Your task to perform on an android device: Show me productivity apps on the Play Store Image 0: 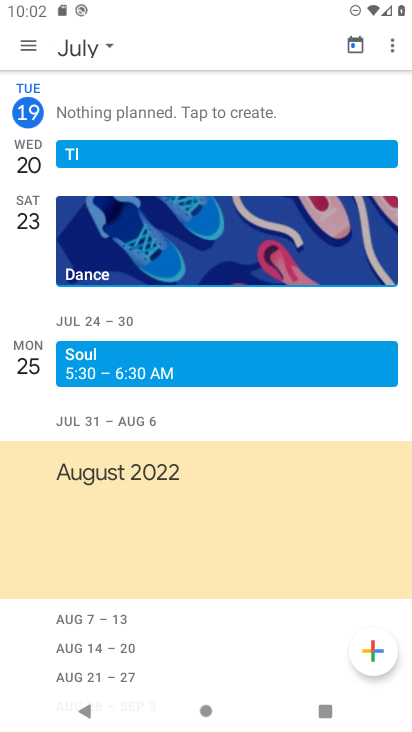
Step 0: press back button
Your task to perform on an android device: Show me productivity apps on the Play Store Image 1: 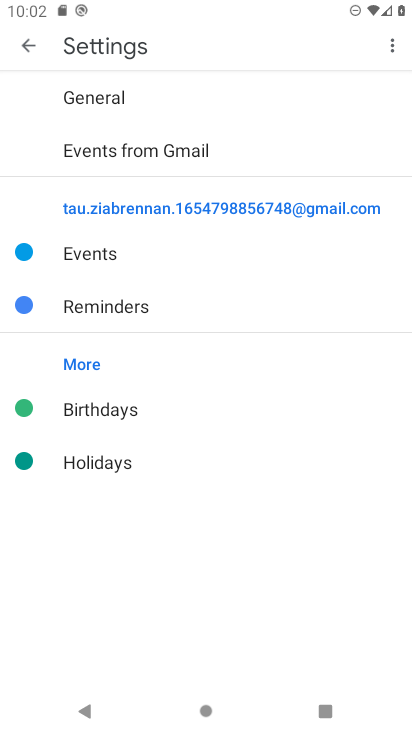
Step 1: click (33, 44)
Your task to perform on an android device: Show me productivity apps on the Play Store Image 2: 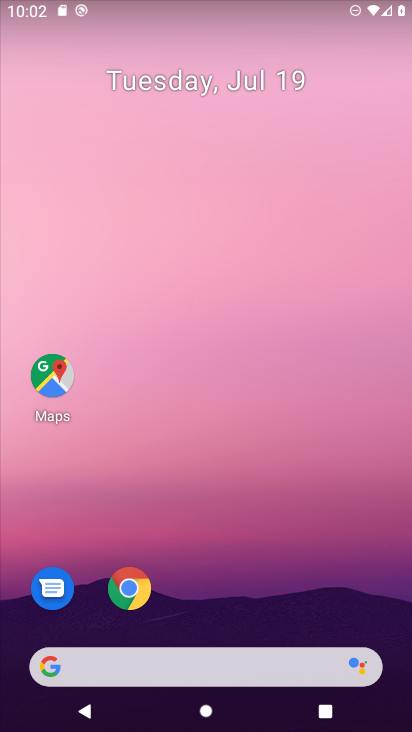
Step 2: drag from (249, 567) to (237, 33)
Your task to perform on an android device: Show me productivity apps on the Play Store Image 3: 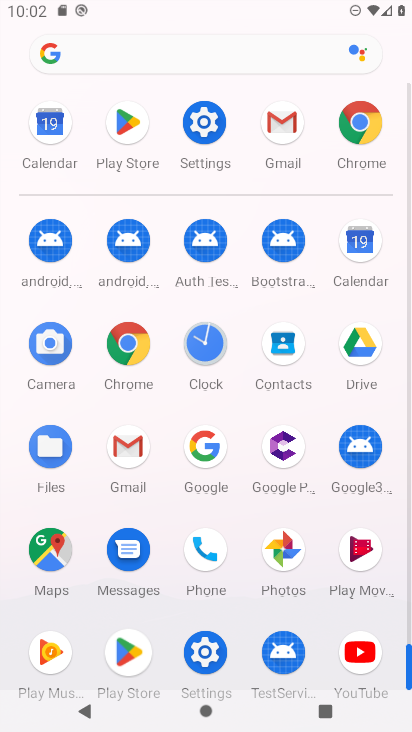
Step 3: drag from (233, 256) to (232, 171)
Your task to perform on an android device: Show me productivity apps on the Play Store Image 4: 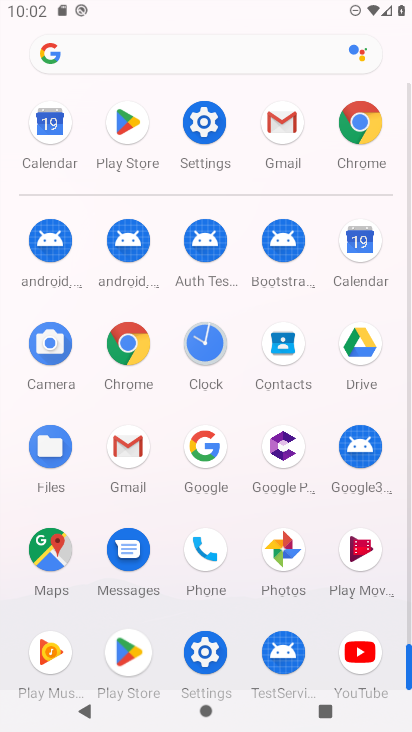
Step 4: click (157, 213)
Your task to perform on an android device: Show me productivity apps on the Play Store Image 5: 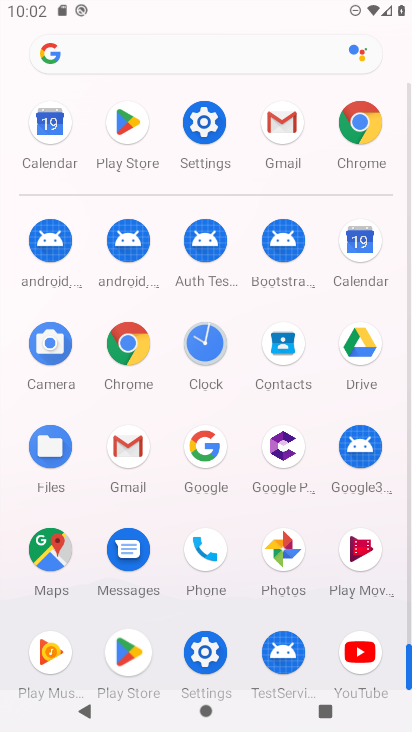
Step 5: click (209, 609)
Your task to perform on an android device: Show me productivity apps on the Play Store Image 6: 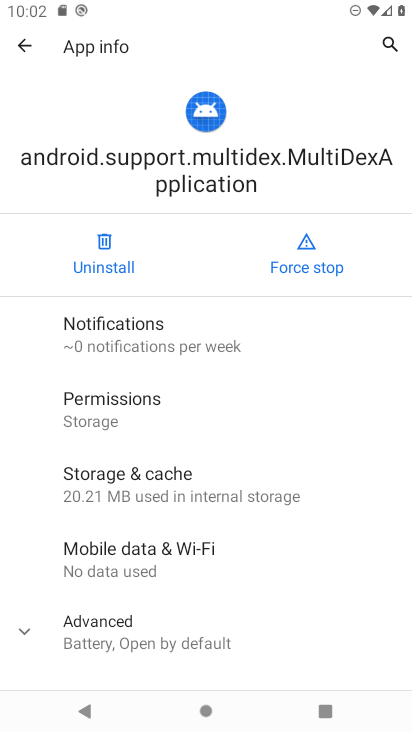
Step 6: click (22, 33)
Your task to perform on an android device: Show me productivity apps on the Play Store Image 7: 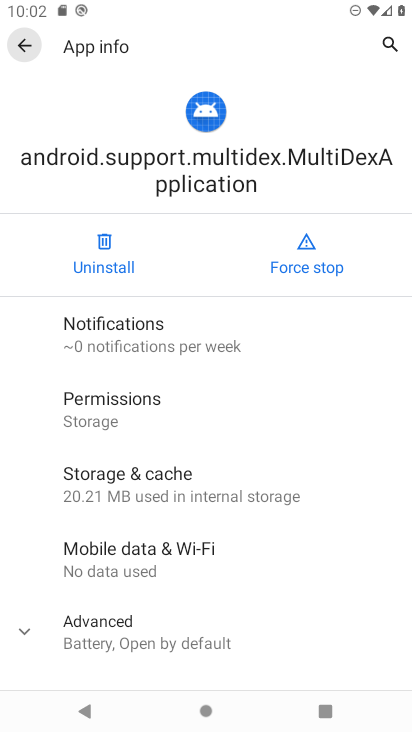
Step 7: click (22, 33)
Your task to perform on an android device: Show me productivity apps on the Play Store Image 8: 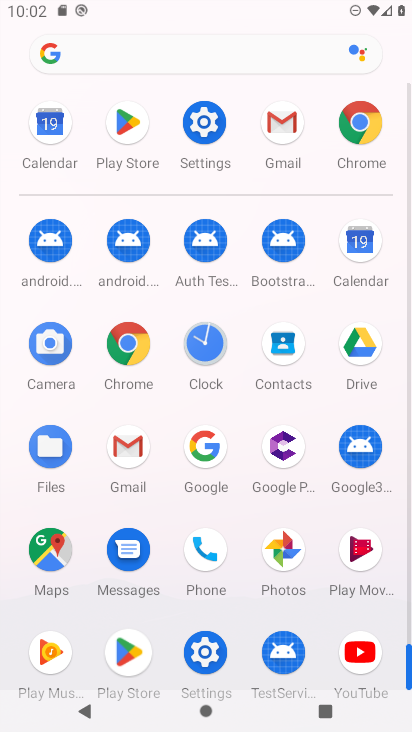
Step 8: click (122, 651)
Your task to perform on an android device: Show me productivity apps on the Play Store Image 9: 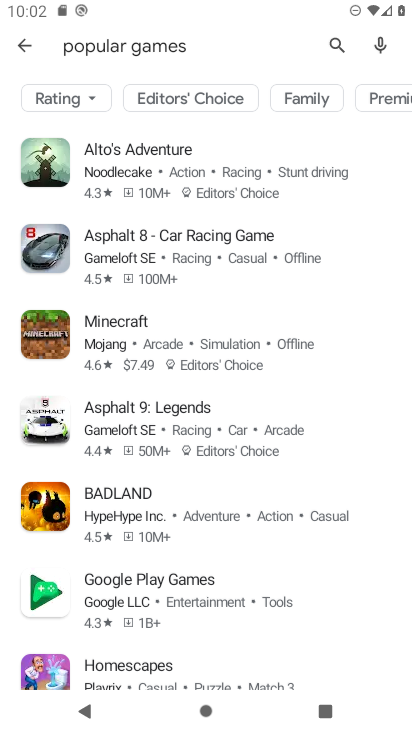
Step 9: click (121, 649)
Your task to perform on an android device: Show me productivity apps on the Play Store Image 10: 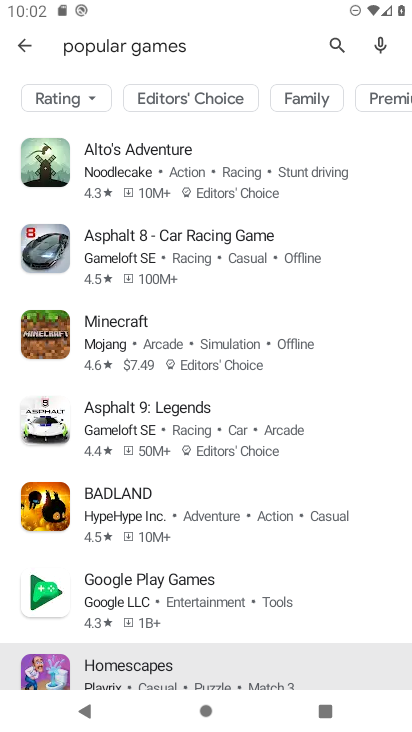
Step 10: click (120, 648)
Your task to perform on an android device: Show me productivity apps on the Play Store Image 11: 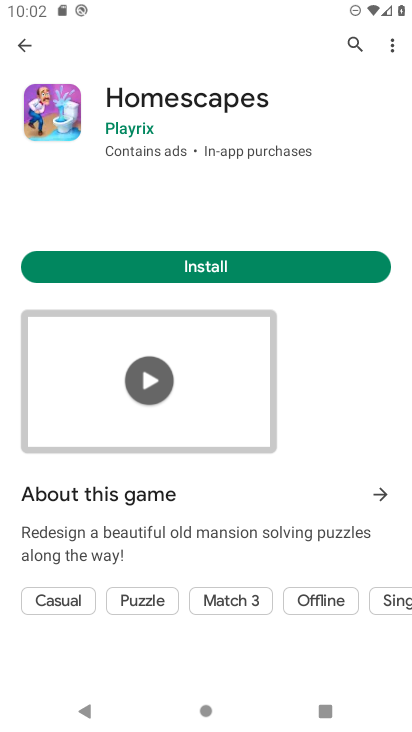
Step 11: click (187, 243)
Your task to perform on an android device: Show me productivity apps on the Play Store Image 12: 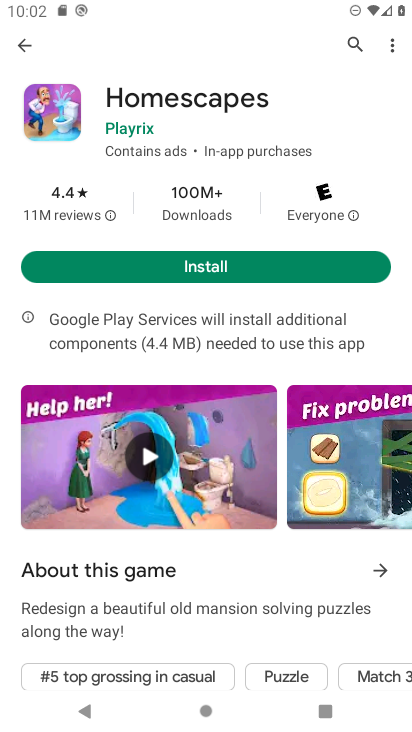
Step 12: click (27, 39)
Your task to perform on an android device: Show me productivity apps on the Play Store Image 13: 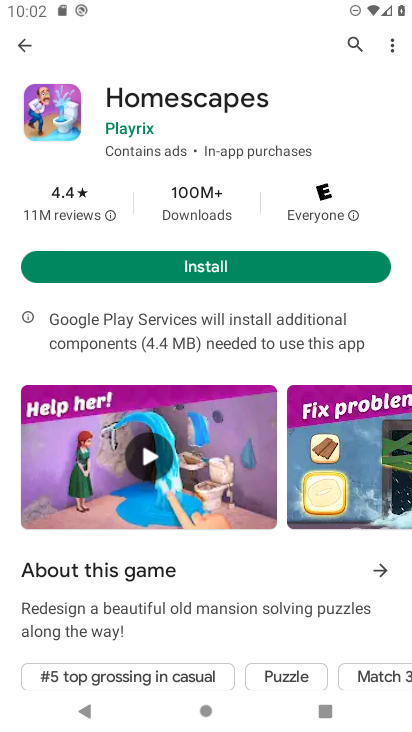
Step 13: click (29, 41)
Your task to perform on an android device: Show me productivity apps on the Play Store Image 14: 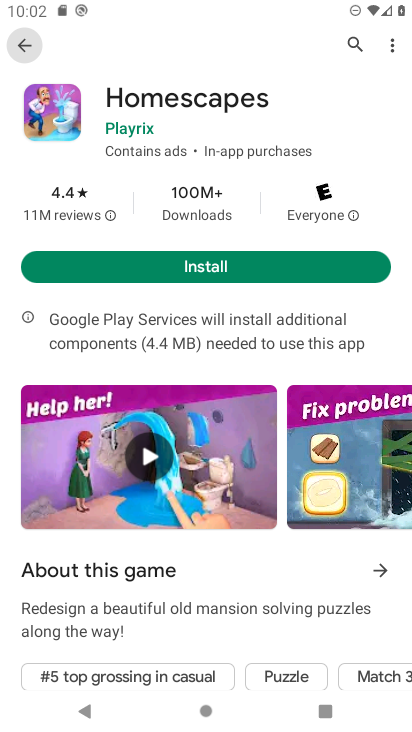
Step 14: click (29, 41)
Your task to perform on an android device: Show me productivity apps on the Play Store Image 15: 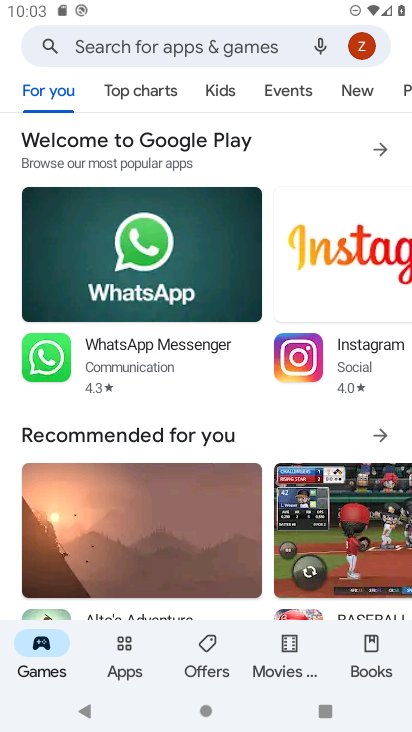
Step 15: click (287, 37)
Your task to perform on an android device: Show me productivity apps on the Play Store Image 16: 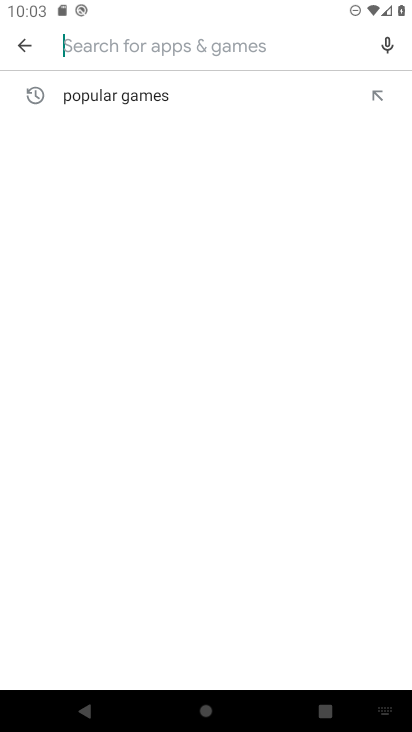
Step 16: type "productivity apps"
Your task to perform on an android device: Show me productivity apps on the Play Store Image 17: 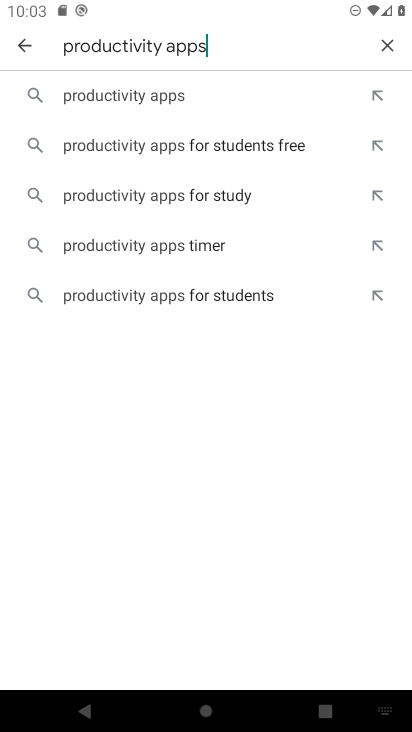
Step 17: type "/"
Your task to perform on an android device: Show me productivity apps on the Play Store Image 18: 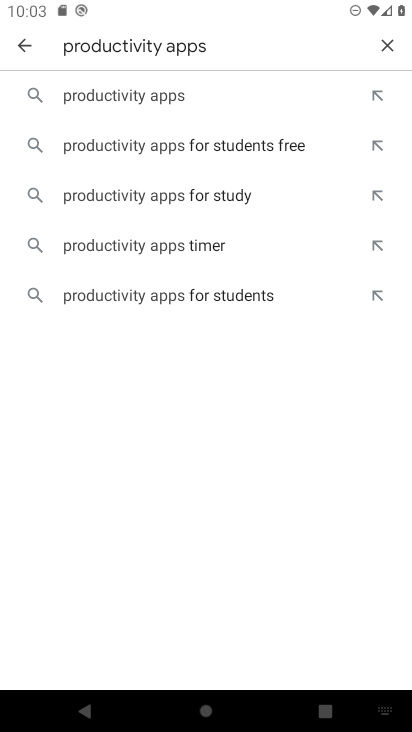
Step 18: click (125, 94)
Your task to perform on an android device: Show me productivity apps on the Play Store Image 19: 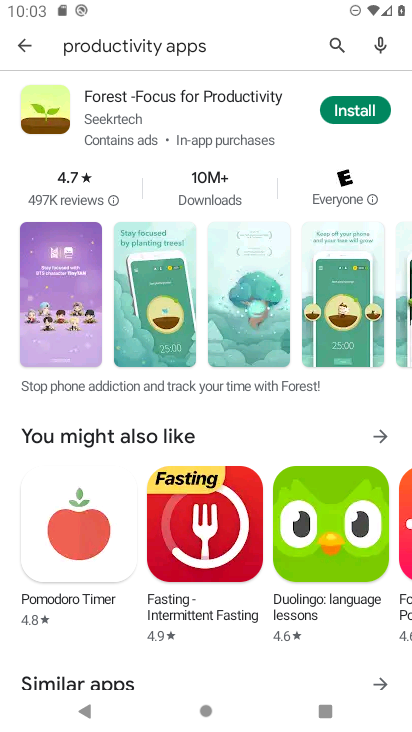
Step 19: task complete